Your task to perform on an android device: turn on showing notifications on the lock screen Image 0: 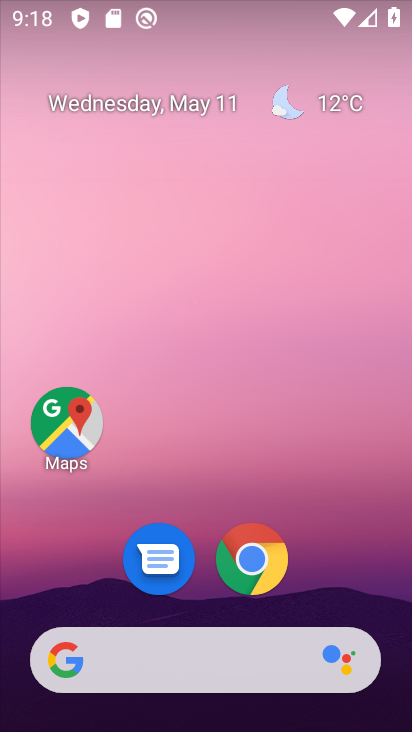
Step 0: drag from (74, 586) to (224, 170)
Your task to perform on an android device: turn on showing notifications on the lock screen Image 1: 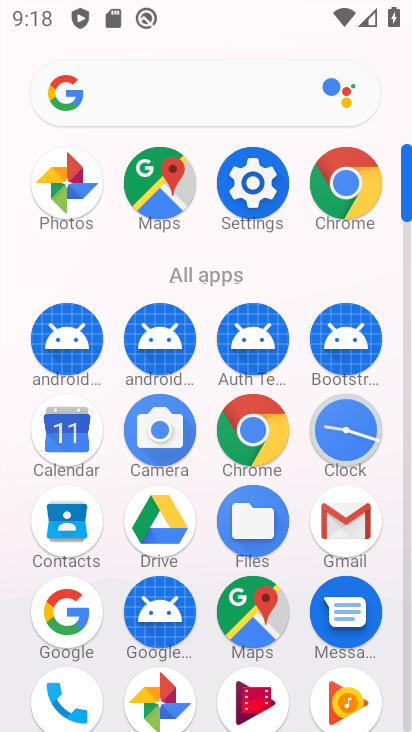
Step 1: drag from (181, 588) to (239, 357)
Your task to perform on an android device: turn on showing notifications on the lock screen Image 2: 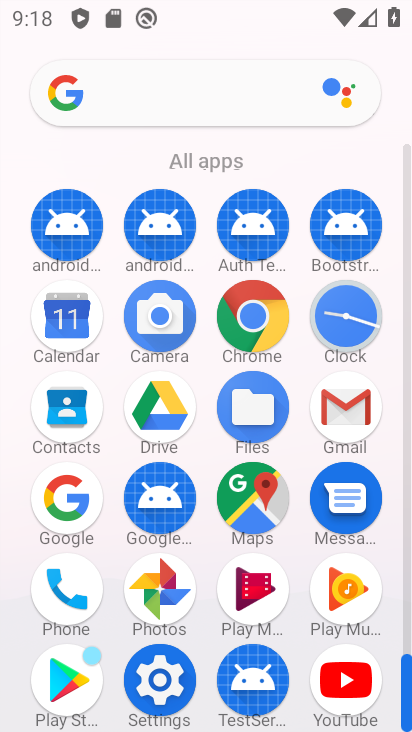
Step 2: click (172, 683)
Your task to perform on an android device: turn on showing notifications on the lock screen Image 3: 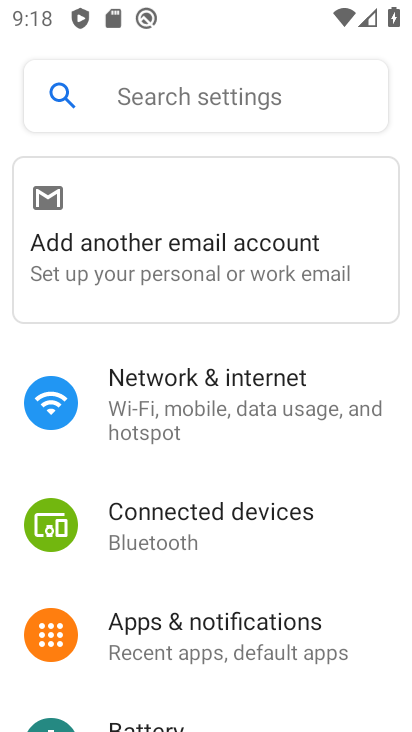
Step 3: click (213, 632)
Your task to perform on an android device: turn on showing notifications on the lock screen Image 4: 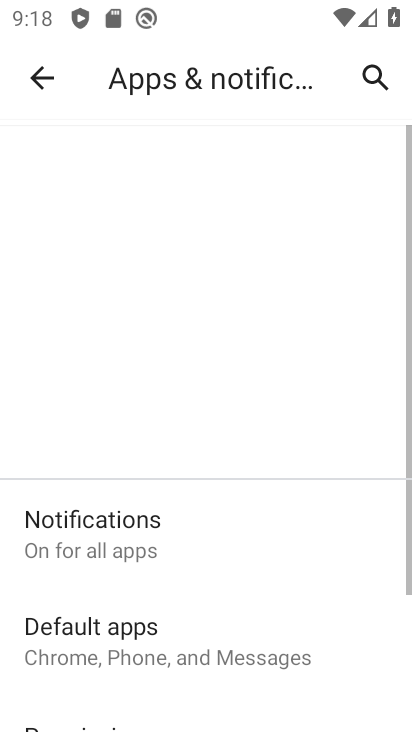
Step 4: drag from (232, 634) to (340, 97)
Your task to perform on an android device: turn on showing notifications on the lock screen Image 5: 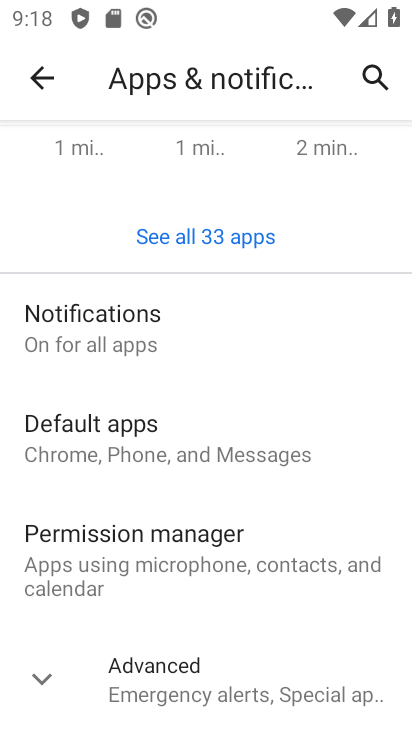
Step 5: click (196, 351)
Your task to perform on an android device: turn on showing notifications on the lock screen Image 6: 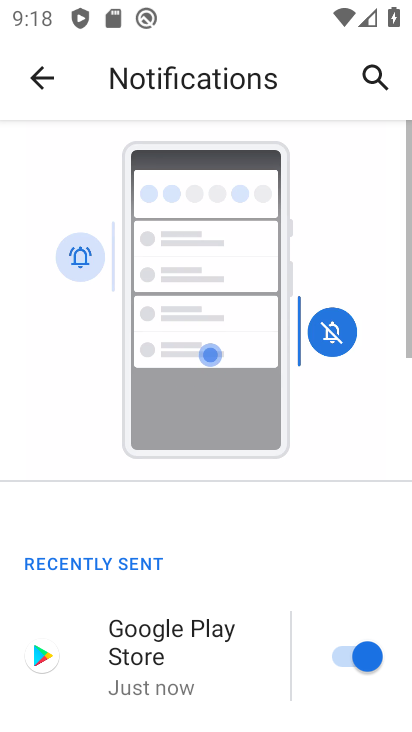
Step 6: drag from (228, 652) to (409, 73)
Your task to perform on an android device: turn on showing notifications on the lock screen Image 7: 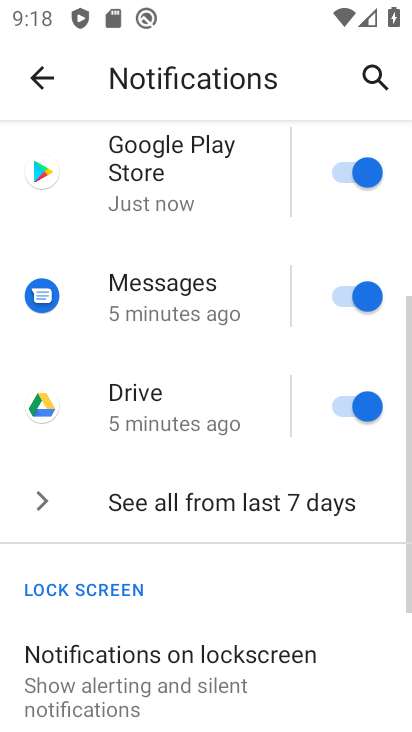
Step 7: drag from (184, 661) to (247, 449)
Your task to perform on an android device: turn on showing notifications on the lock screen Image 8: 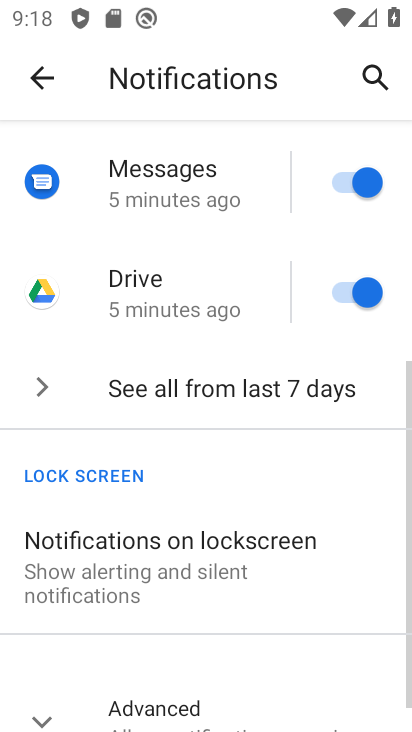
Step 8: click (233, 571)
Your task to perform on an android device: turn on showing notifications on the lock screen Image 9: 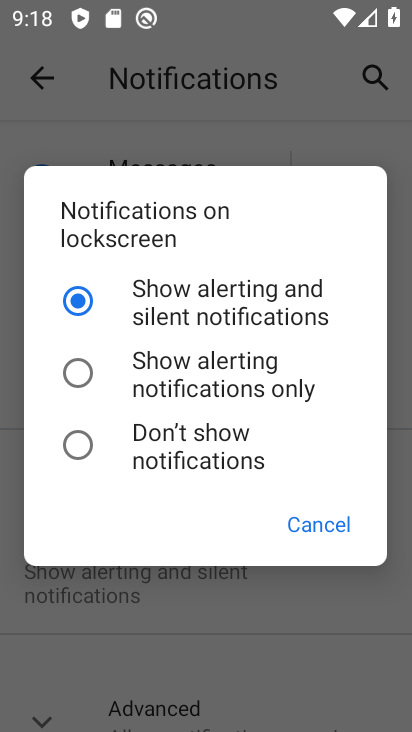
Step 9: task complete